Your task to perform on an android device: What's a good restaurant in Portland? Image 0: 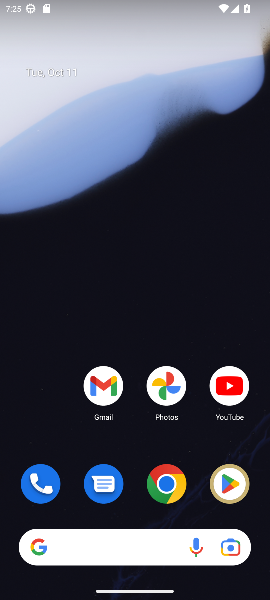
Step 0: click (165, 484)
Your task to perform on an android device: What's a good restaurant in Portland? Image 1: 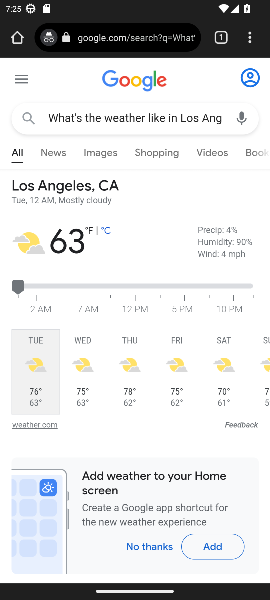
Step 1: click (117, 44)
Your task to perform on an android device: What's a good restaurant in Portland? Image 2: 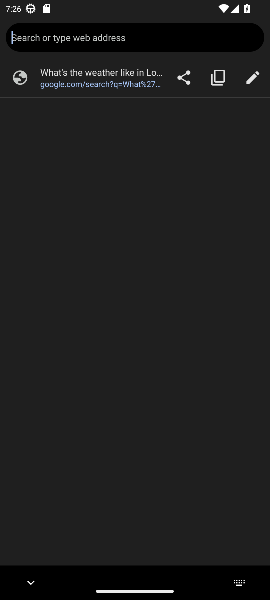
Step 2: type "What's a good restaurant in Portland?"
Your task to perform on an android device: What's a good restaurant in Portland? Image 3: 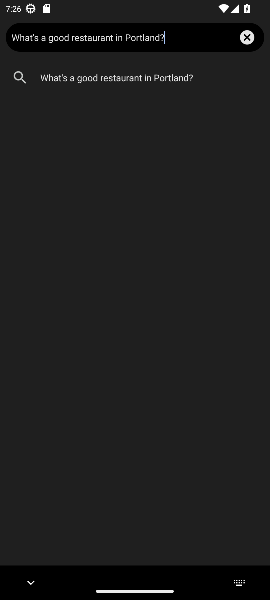
Step 3: click (117, 77)
Your task to perform on an android device: What's a good restaurant in Portland? Image 4: 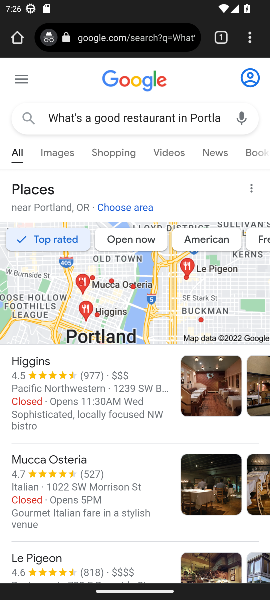
Step 4: task complete